Your task to perform on an android device: Open a new tab in Chrome Image 0: 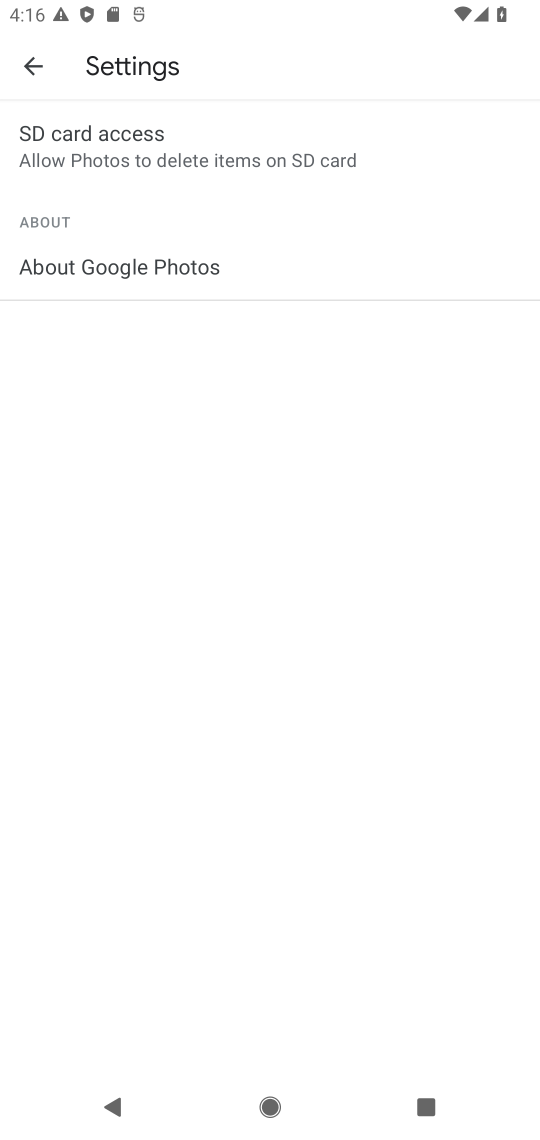
Step 0: press home button
Your task to perform on an android device: Open a new tab in Chrome Image 1: 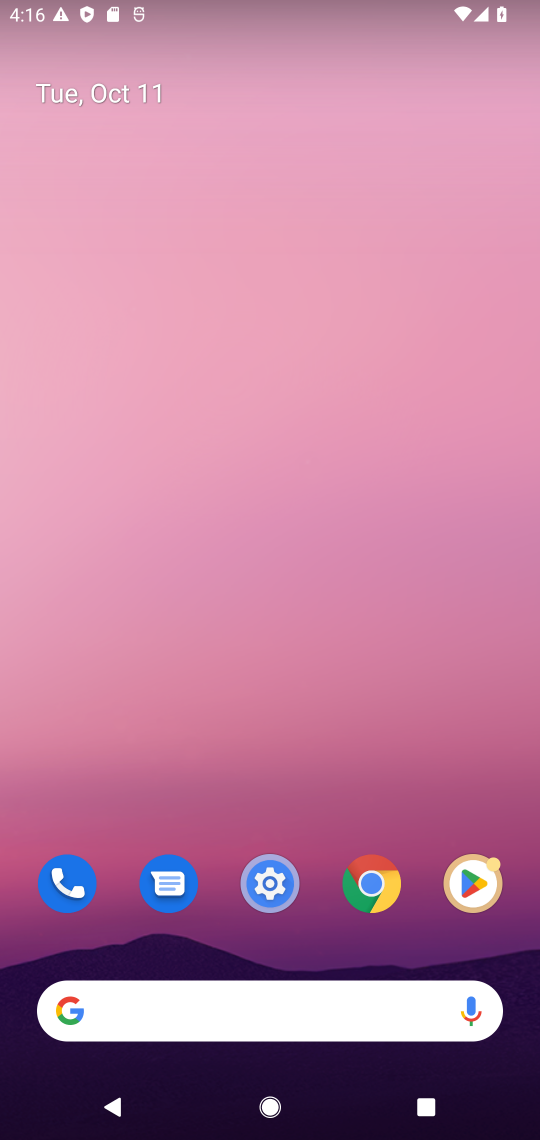
Step 1: drag from (335, 939) to (337, 222)
Your task to perform on an android device: Open a new tab in Chrome Image 2: 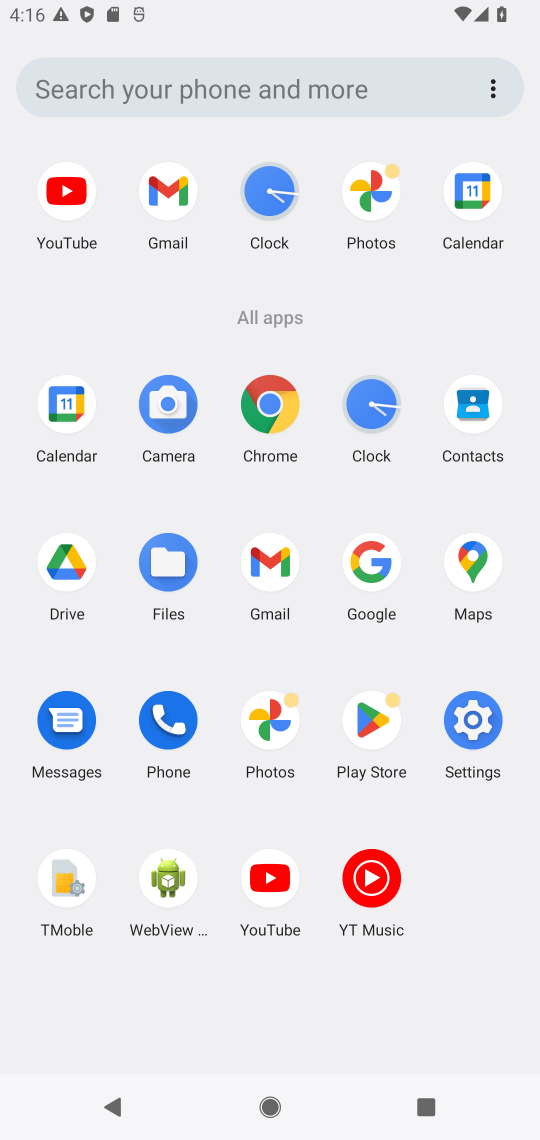
Step 2: click (262, 411)
Your task to perform on an android device: Open a new tab in Chrome Image 3: 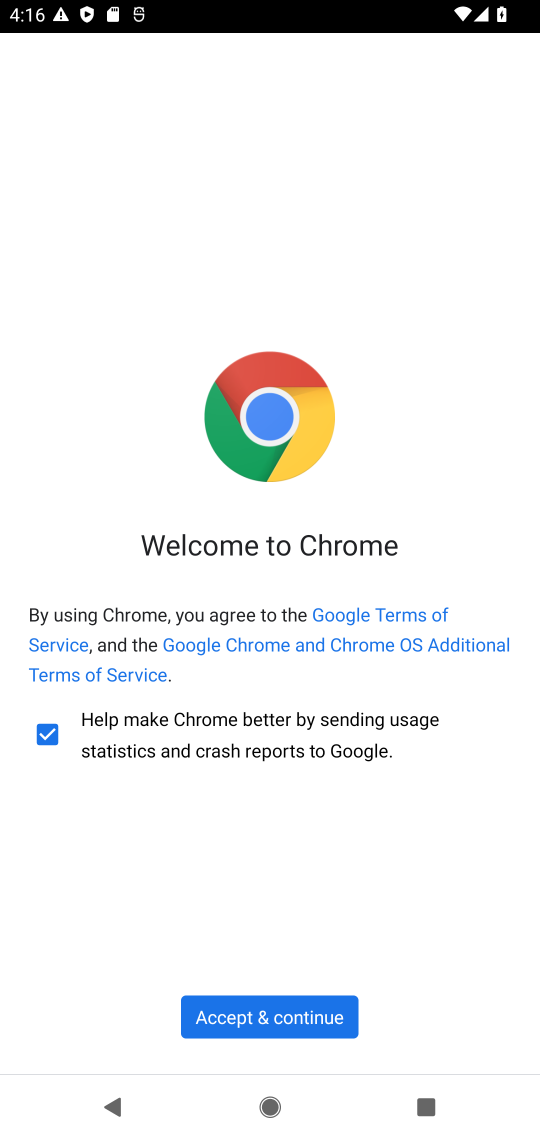
Step 3: click (279, 1023)
Your task to perform on an android device: Open a new tab in Chrome Image 4: 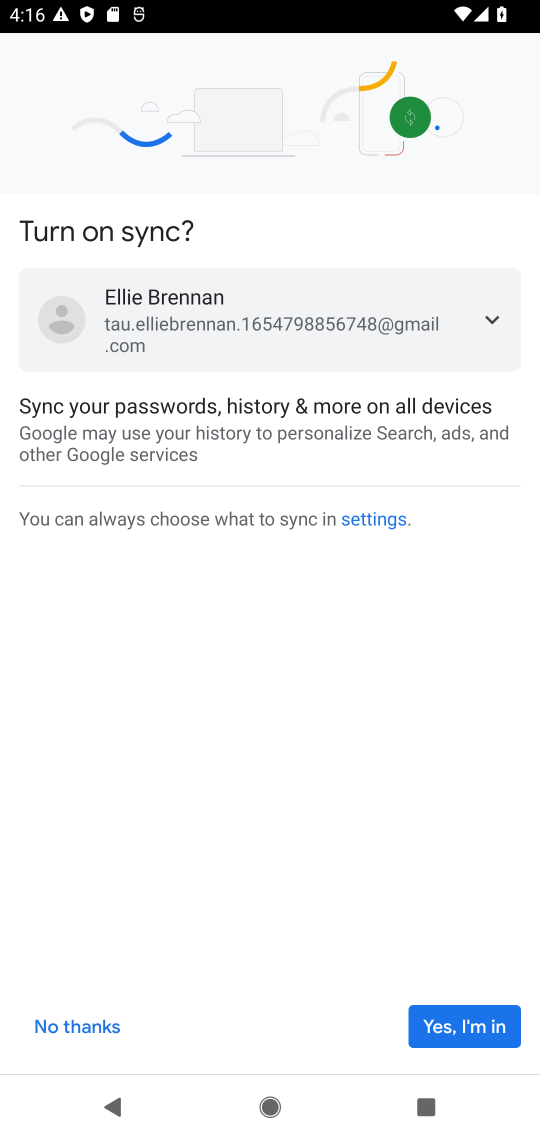
Step 4: click (436, 1031)
Your task to perform on an android device: Open a new tab in Chrome Image 5: 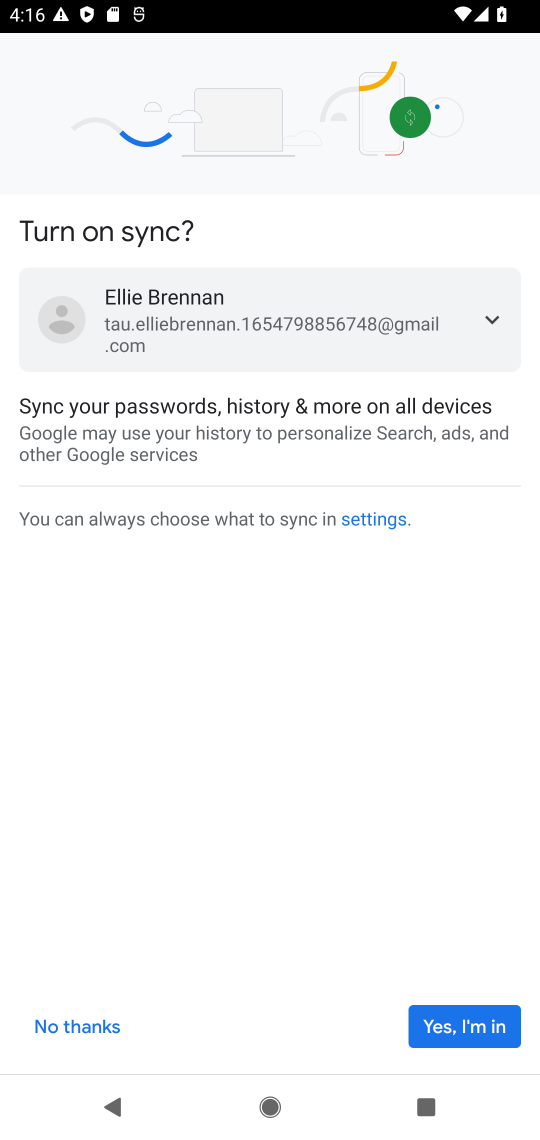
Step 5: click (436, 1031)
Your task to perform on an android device: Open a new tab in Chrome Image 6: 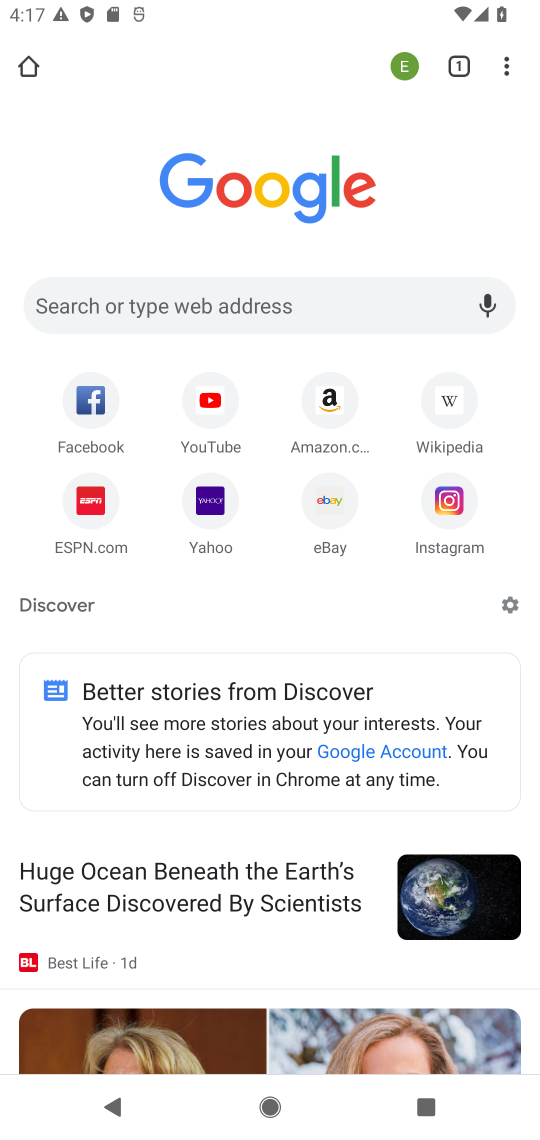
Step 6: task complete